Your task to perform on an android device: turn off notifications in google photos Image 0: 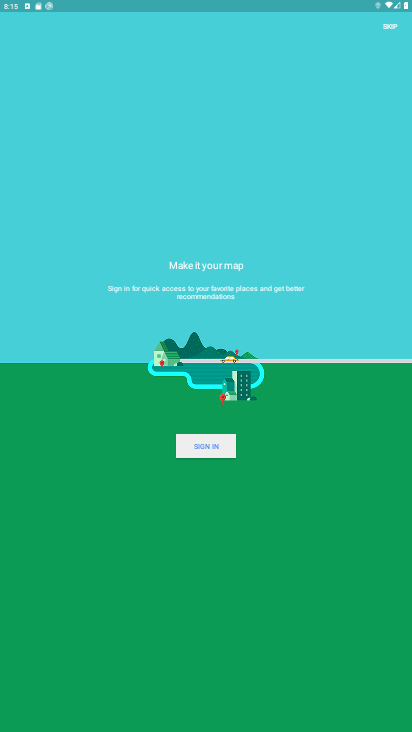
Step 0: press home button
Your task to perform on an android device: turn off notifications in google photos Image 1: 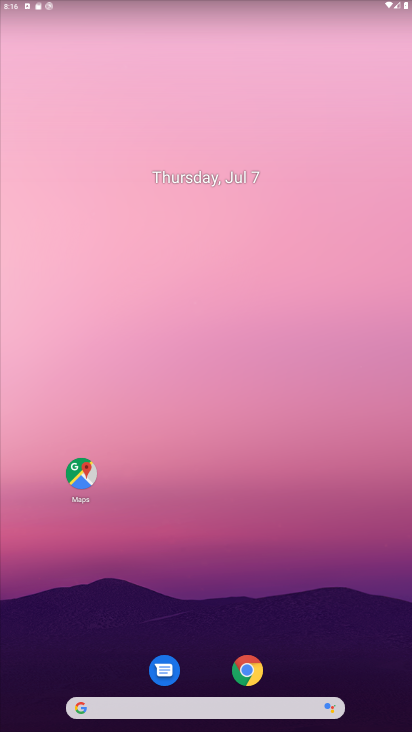
Step 1: drag from (11, 720) to (335, 141)
Your task to perform on an android device: turn off notifications in google photos Image 2: 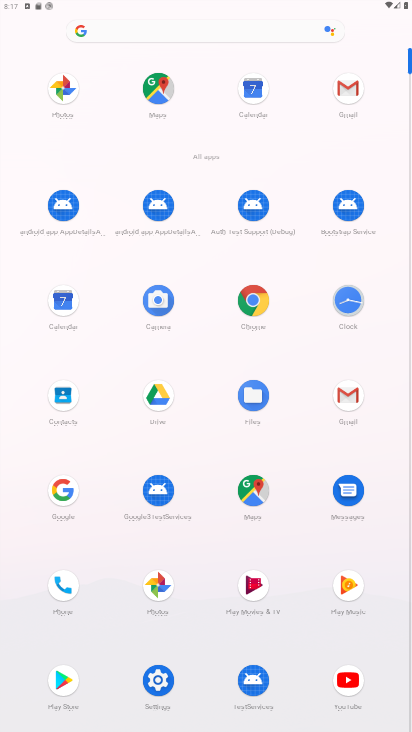
Step 2: click (164, 577)
Your task to perform on an android device: turn off notifications in google photos Image 3: 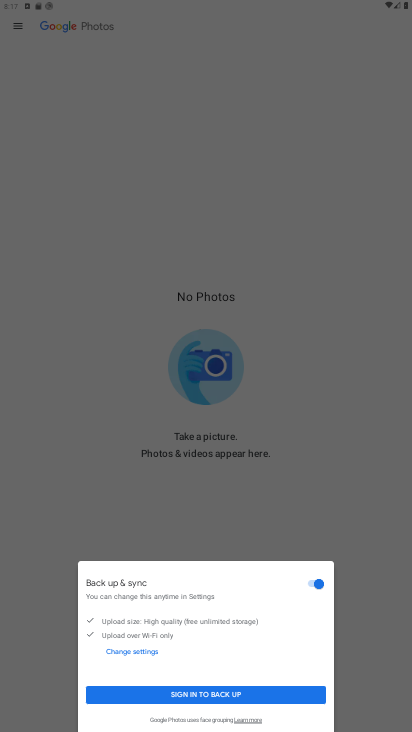
Step 3: click (225, 483)
Your task to perform on an android device: turn off notifications in google photos Image 4: 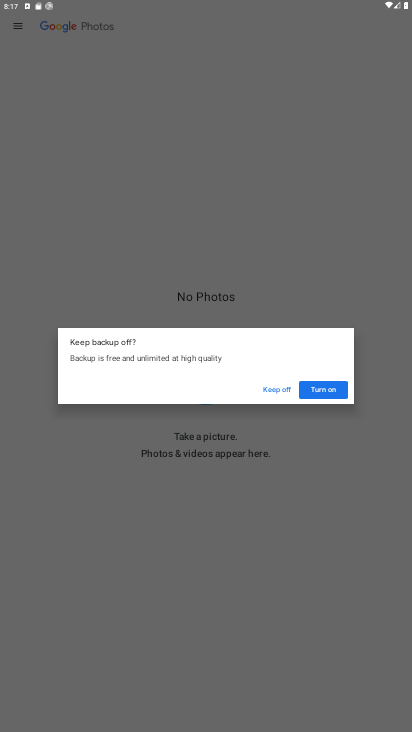
Step 4: click (308, 383)
Your task to perform on an android device: turn off notifications in google photos Image 5: 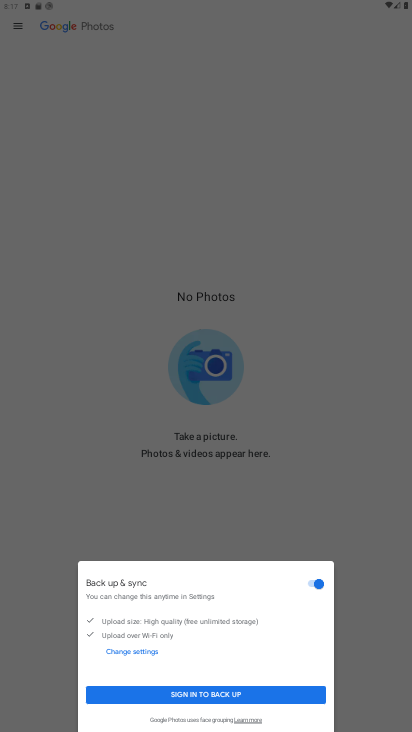
Step 5: click (262, 689)
Your task to perform on an android device: turn off notifications in google photos Image 6: 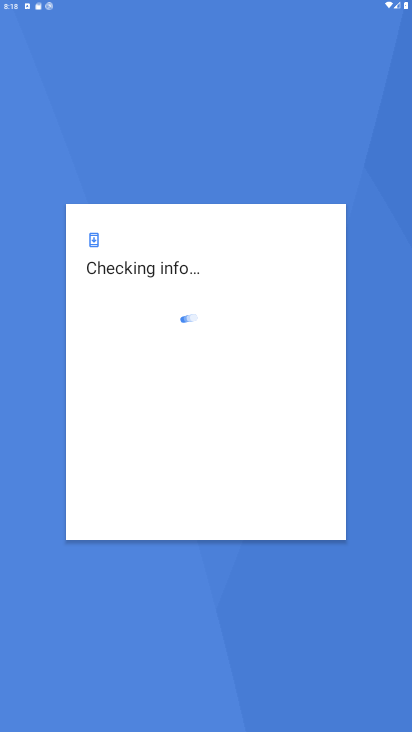
Step 6: task complete